Your task to perform on an android device: toggle airplane mode Image 0: 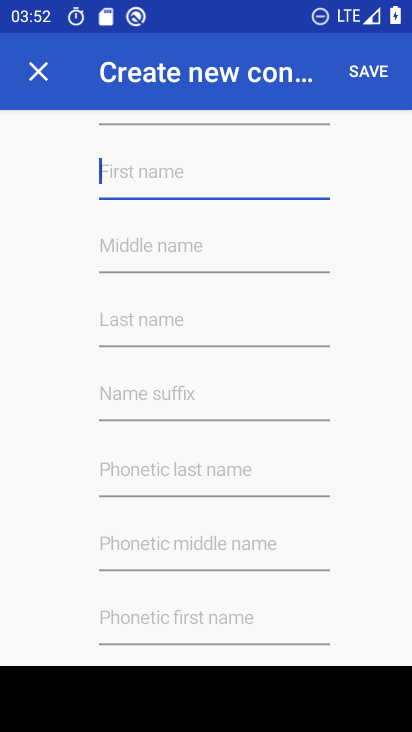
Step 0: press home button
Your task to perform on an android device: toggle airplane mode Image 1: 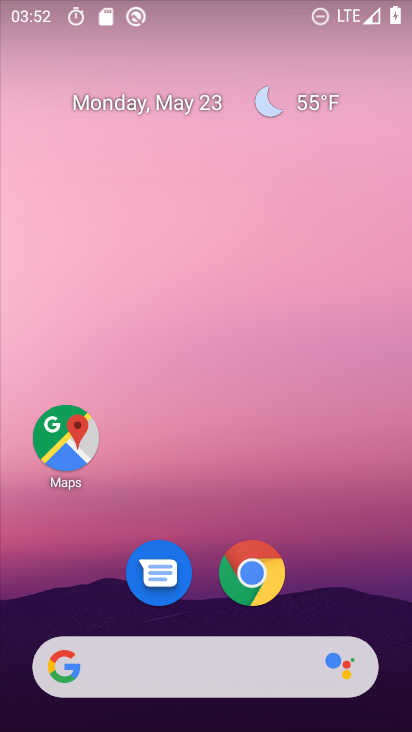
Step 1: drag from (342, 601) to (306, 239)
Your task to perform on an android device: toggle airplane mode Image 2: 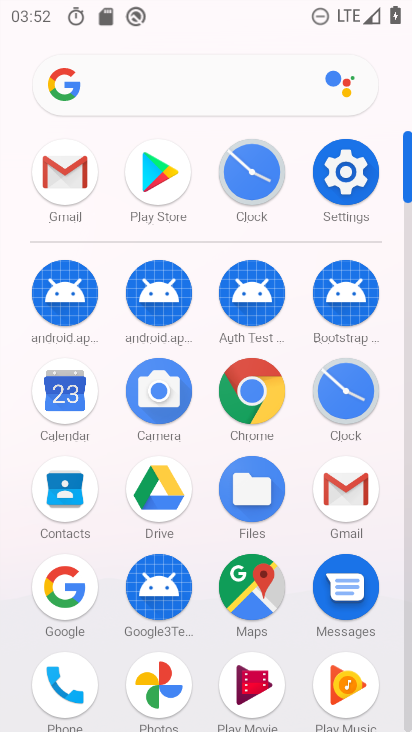
Step 2: click (347, 178)
Your task to perform on an android device: toggle airplane mode Image 3: 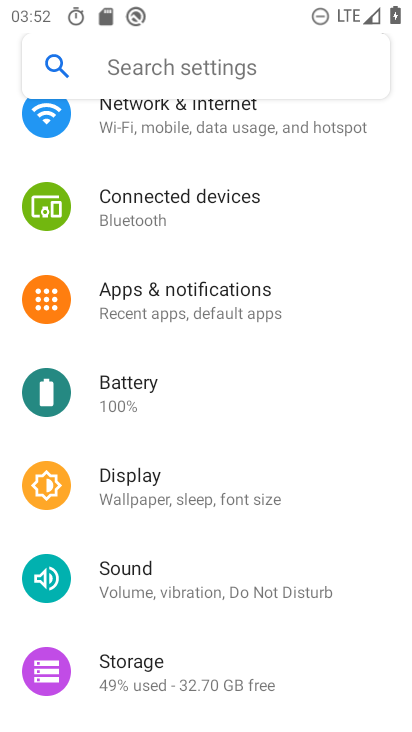
Step 3: click (221, 119)
Your task to perform on an android device: toggle airplane mode Image 4: 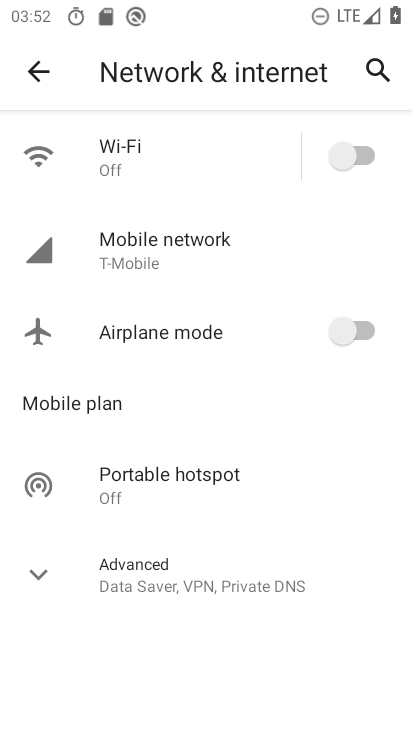
Step 4: click (367, 330)
Your task to perform on an android device: toggle airplane mode Image 5: 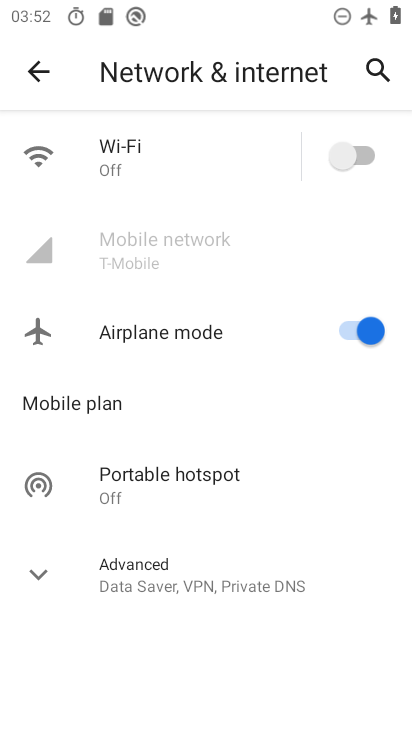
Step 5: task complete